Your task to perform on an android device: turn off improve location accuracy Image 0: 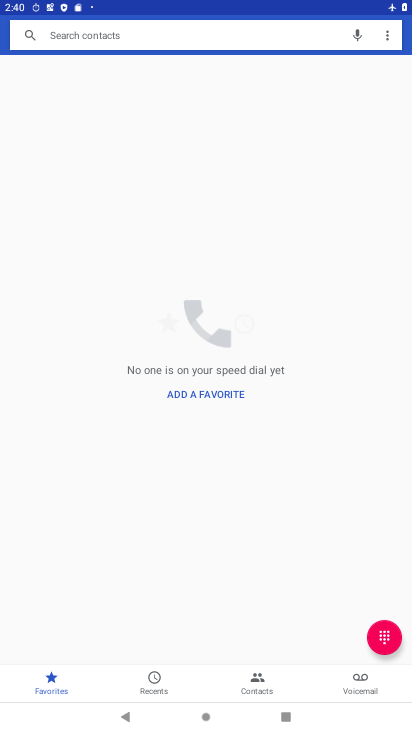
Step 0: press home button
Your task to perform on an android device: turn off improve location accuracy Image 1: 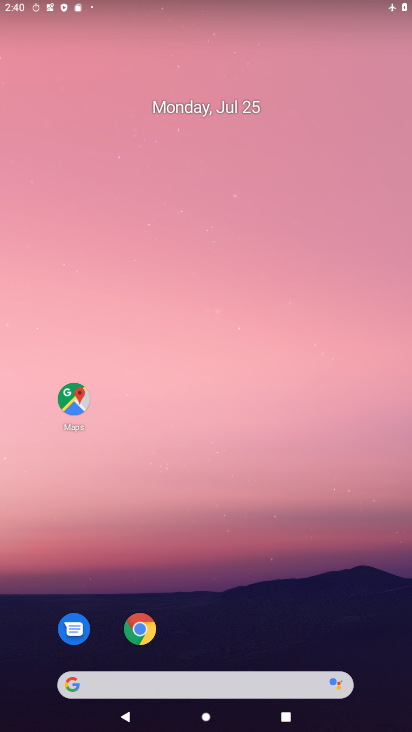
Step 1: drag from (30, 658) to (227, 124)
Your task to perform on an android device: turn off improve location accuracy Image 2: 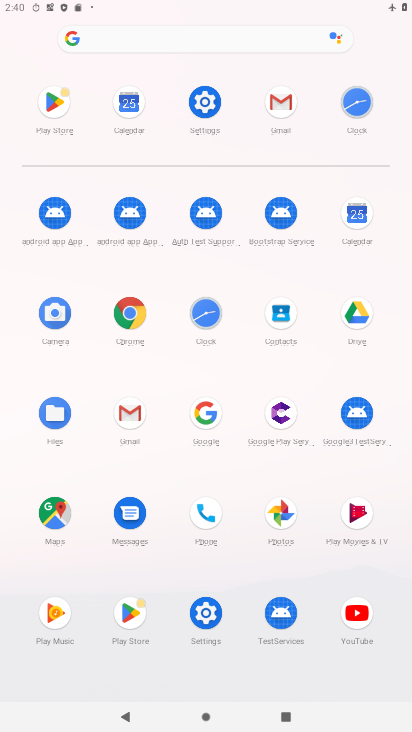
Step 2: click (205, 614)
Your task to perform on an android device: turn off improve location accuracy Image 3: 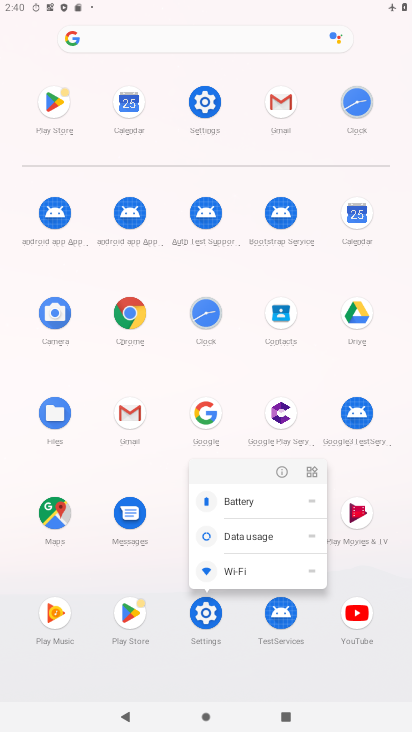
Step 3: click (199, 618)
Your task to perform on an android device: turn off improve location accuracy Image 4: 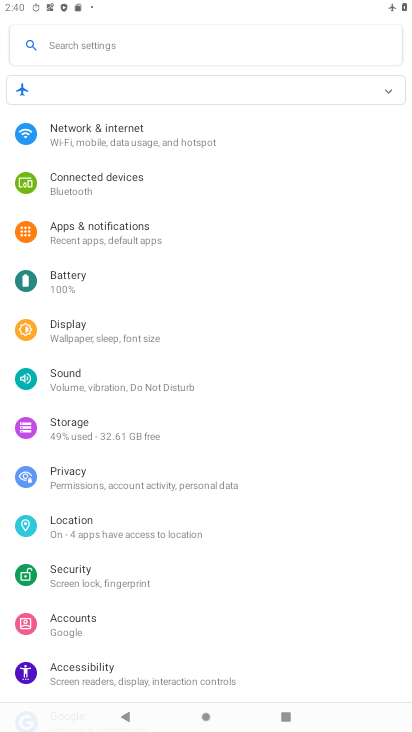
Step 4: click (73, 516)
Your task to perform on an android device: turn off improve location accuracy Image 5: 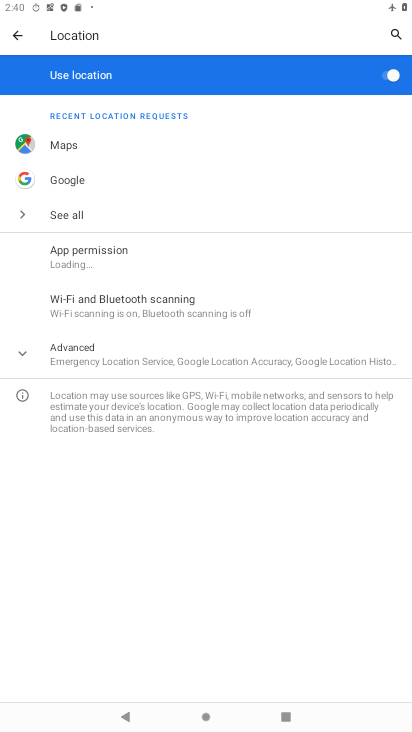
Step 5: click (105, 358)
Your task to perform on an android device: turn off improve location accuracy Image 6: 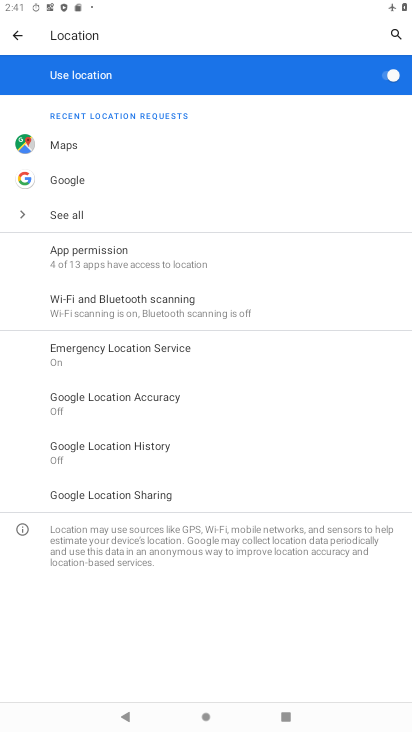
Step 6: task complete